Your task to perform on an android device: Open Android settings Image 0: 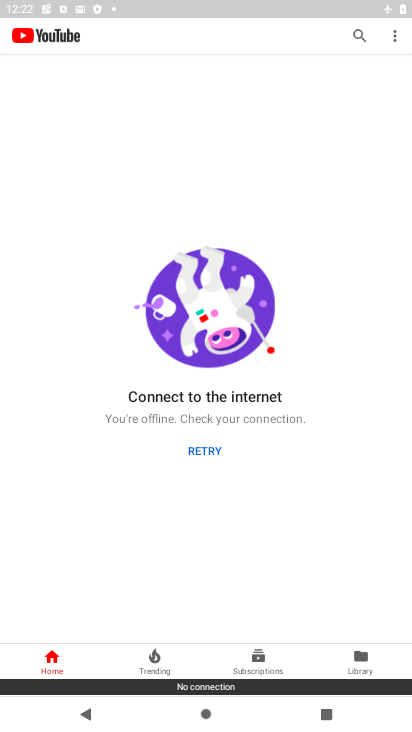
Step 0: press home button
Your task to perform on an android device: Open Android settings Image 1: 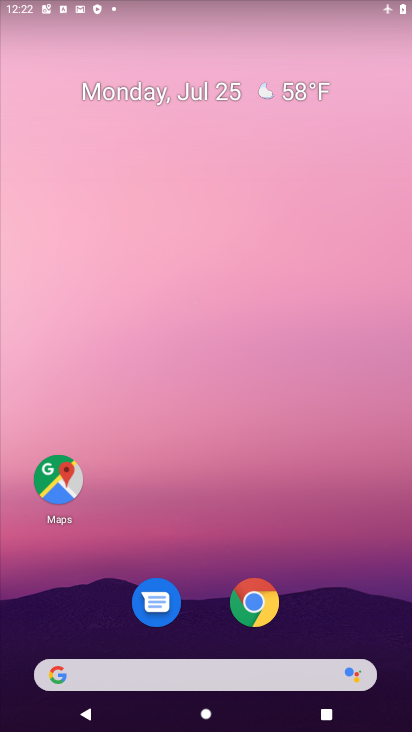
Step 1: drag from (195, 570) to (189, 79)
Your task to perform on an android device: Open Android settings Image 2: 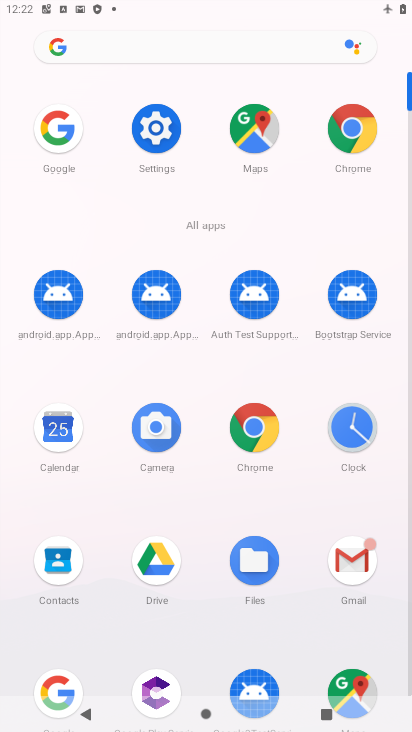
Step 2: click (165, 148)
Your task to perform on an android device: Open Android settings Image 3: 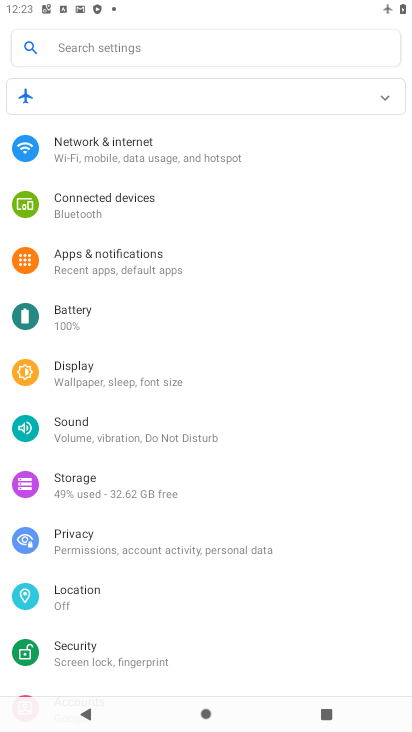
Step 3: task complete